Your task to perform on an android device: turn on wifi Image 0: 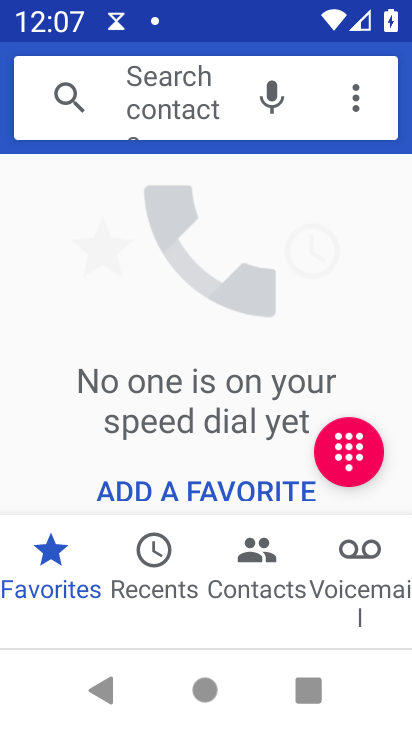
Step 0: press home button
Your task to perform on an android device: turn on wifi Image 1: 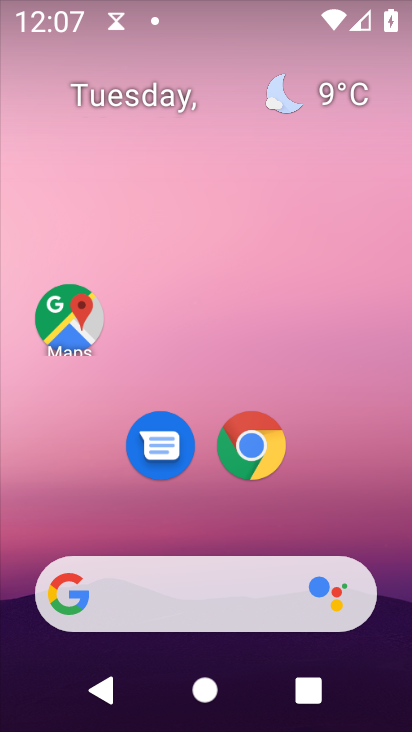
Step 1: task complete